Your task to perform on an android device: change timer sound Image 0: 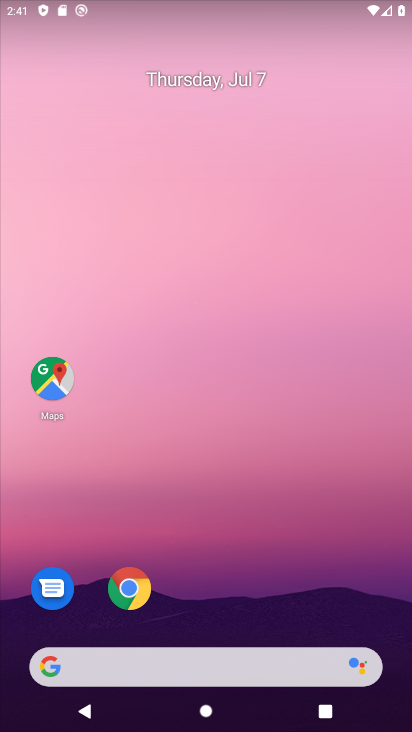
Step 0: drag from (226, 585) to (173, 60)
Your task to perform on an android device: change timer sound Image 1: 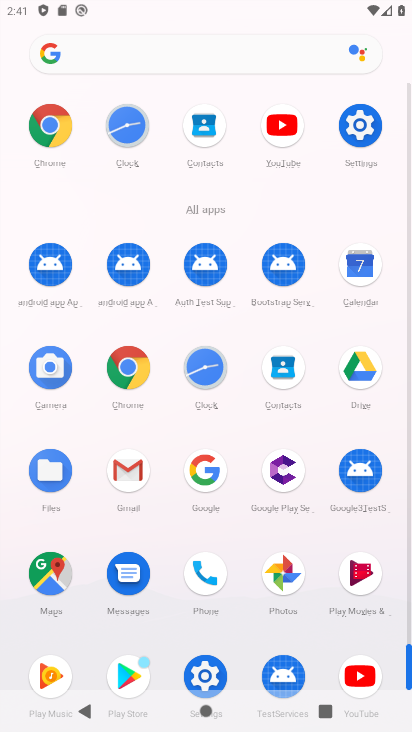
Step 1: click (208, 364)
Your task to perform on an android device: change timer sound Image 2: 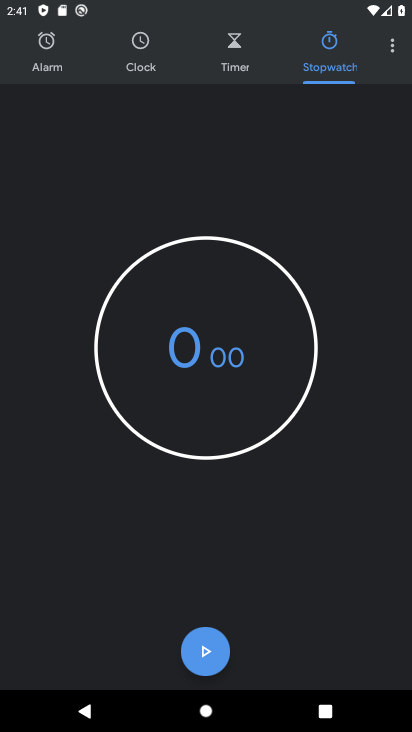
Step 2: click (394, 50)
Your task to perform on an android device: change timer sound Image 3: 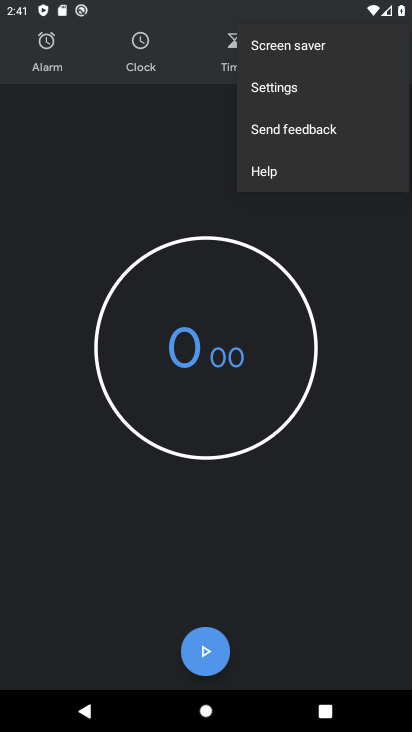
Step 3: click (305, 88)
Your task to perform on an android device: change timer sound Image 4: 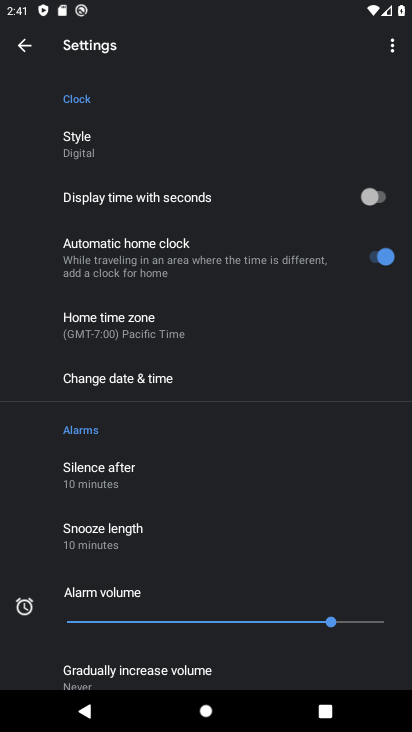
Step 4: drag from (156, 551) to (182, 396)
Your task to perform on an android device: change timer sound Image 5: 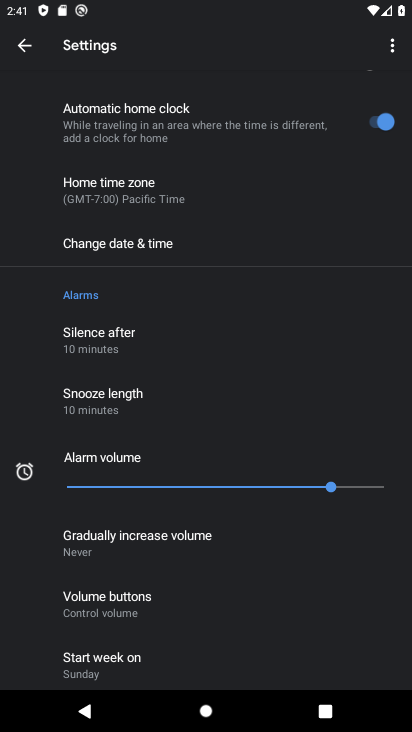
Step 5: drag from (135, 565) to (218, 435)
Your task to perform on an android device: change timer sound Image 6: 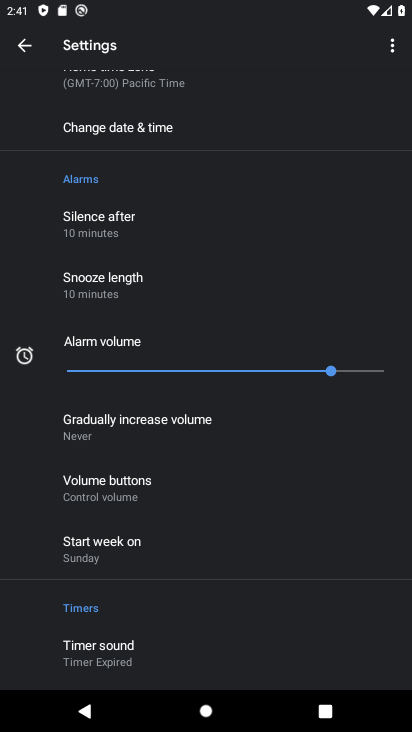
Step 6: drag from (150, 597) to (214, 496)
Your task to perform on an android device: change timer sound Image 7: 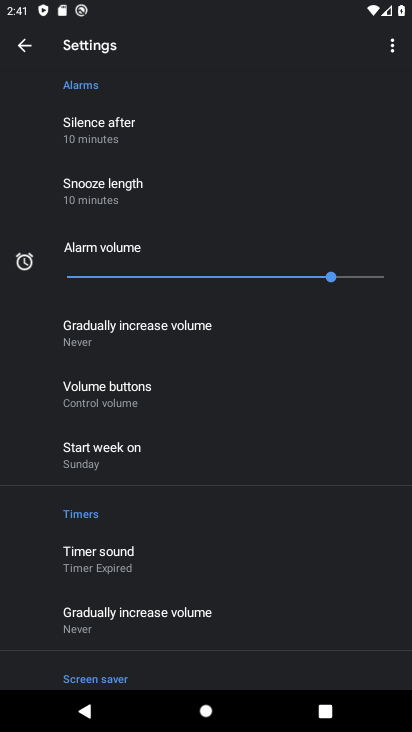
Step 7: click (136, 555)
Your task to perform on an android device: change timer sound Image 8: 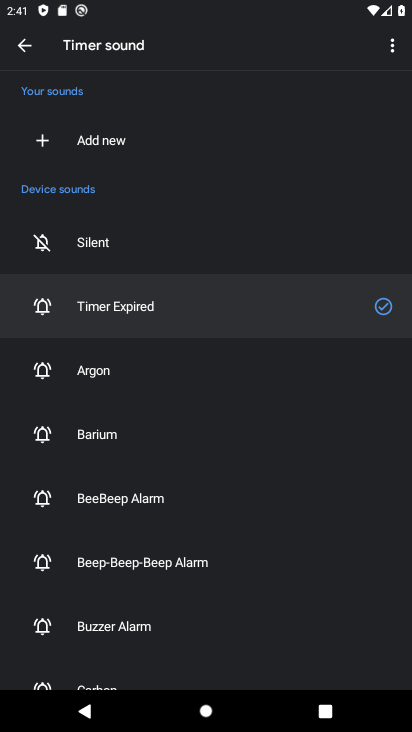
Step 8: drag from (162, 494) to (240, 372)
Your task to perform on an android device: change timer sound Image 9: 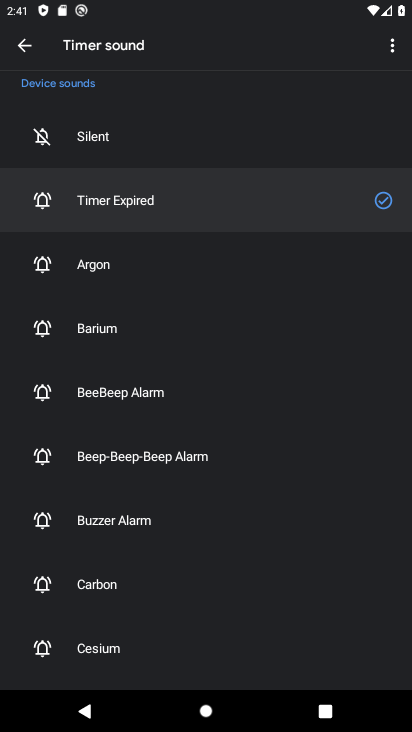
Step 9: drag from (163, 509) to (247, 364)
Your task to perform on an android device: change timer sound Image 10: 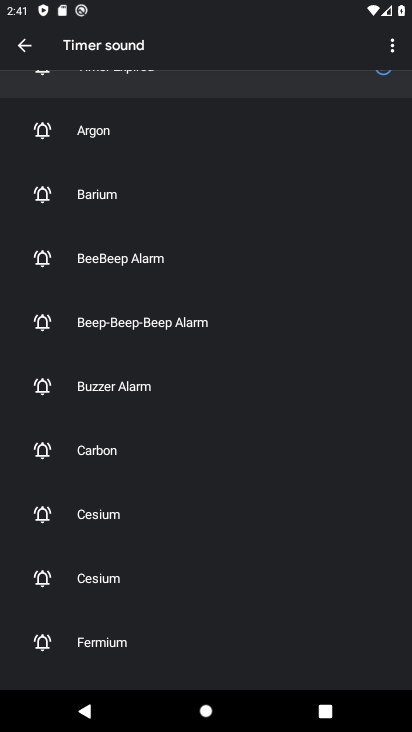
Step 10: drag from (165, 485) to (253, 347)
Your task to perform on an android device: change timer sound Image 11: 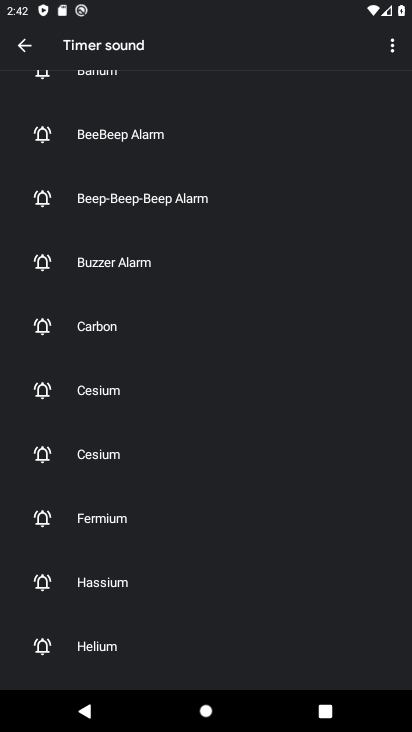
Step 11: click (102, 449)
Your task to perform on an android device: change timer sound Image 12: 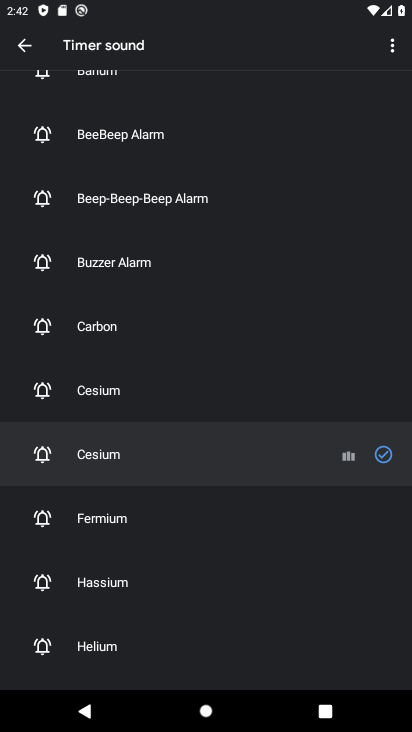
Step 12: task complete